Your task to perform on an android device: turn on airplane mode Image 0: 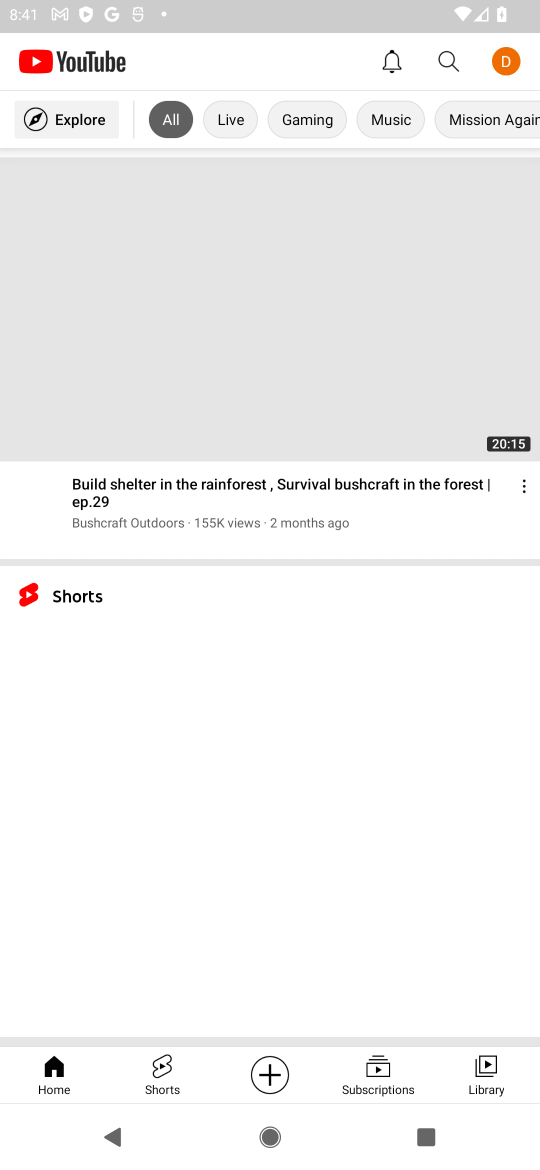
Step 0: press home button
Your task to perform on an android device: turn on airplane mode Image 1: 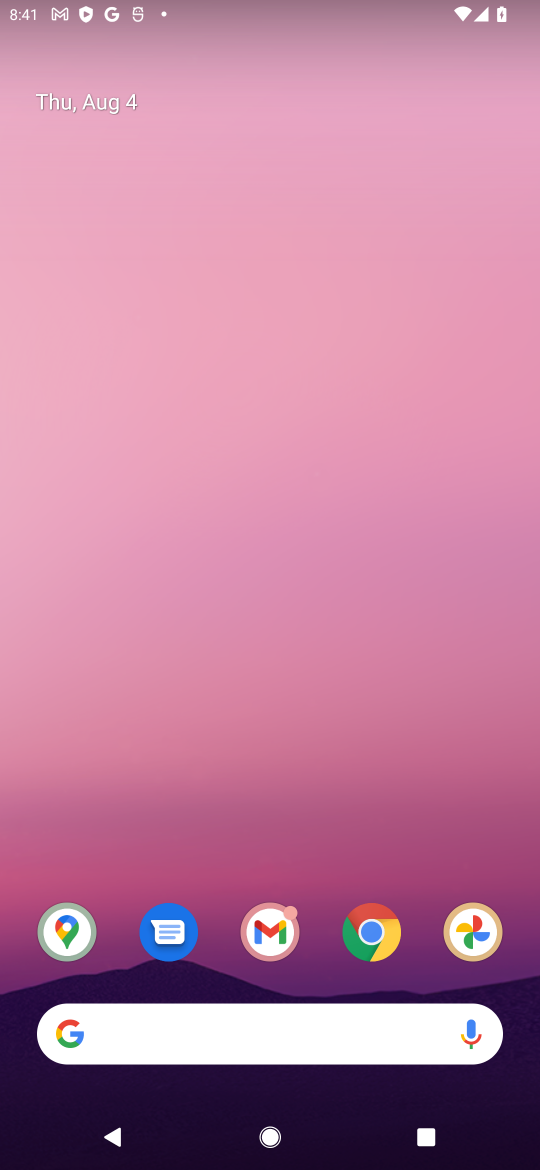
Step 1: drag from (229, 964) to (329, 149)
Your task to perform on an android device: turn on airplane mode Image 2: 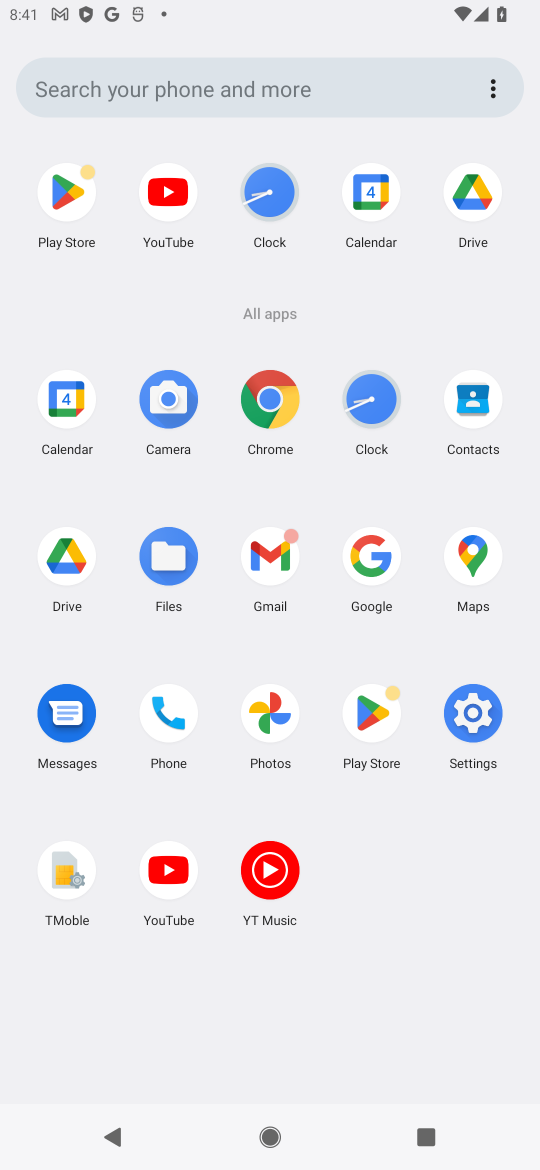
Step 2: click (466, 718)
Your task to perform on an android device: turn on airplane mode Image 3: 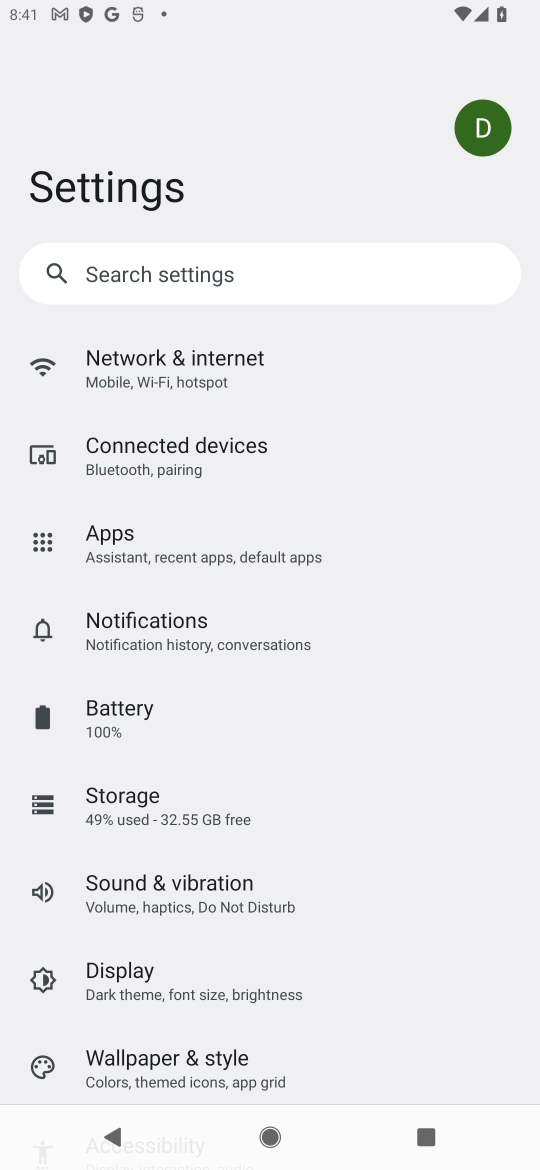
Step 3: click (188, 376)
Your task to perform on an android device: turn on airplane mode Image 4: 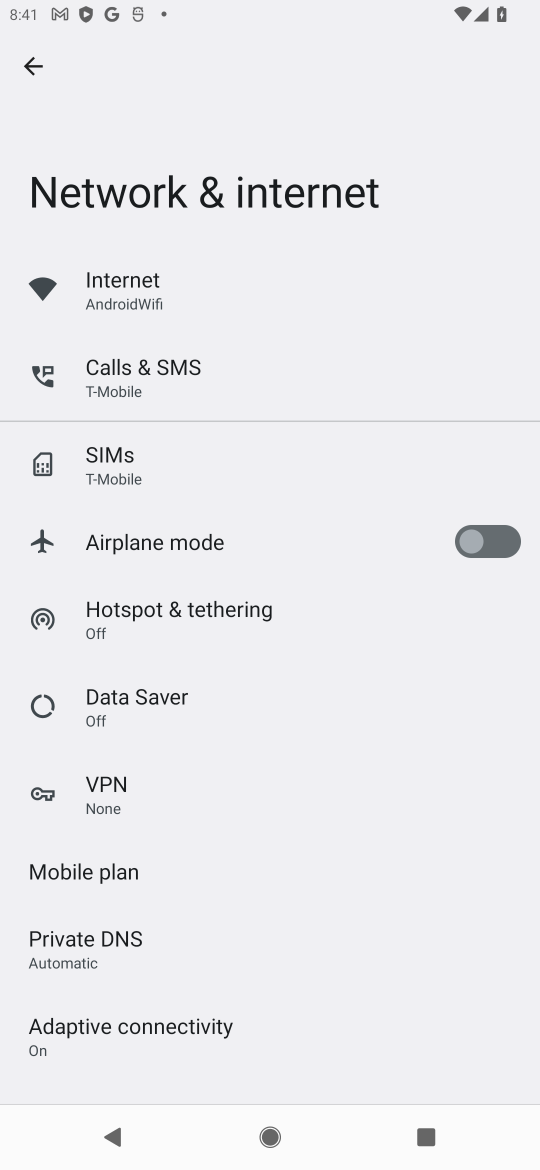
Step 4: drag from (248, 942) to (332, 332)
Your task to perform on an android device: turn on airplane mode Image 5: 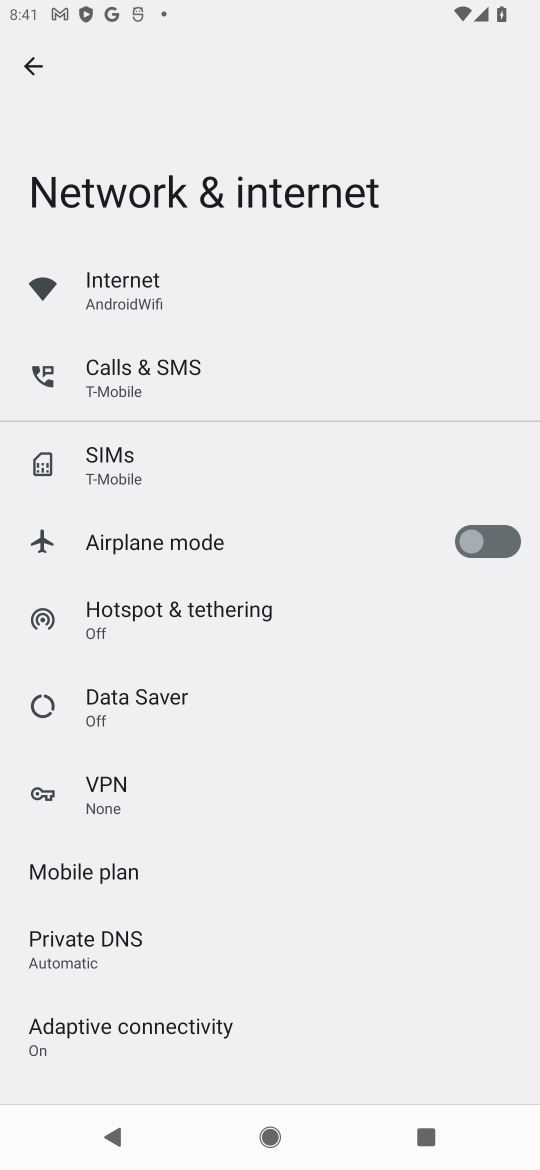
Step 5: drag from (162, 1028) to (409, 346)
Your task to perform on an android device: turn on airplane mode Image 6: 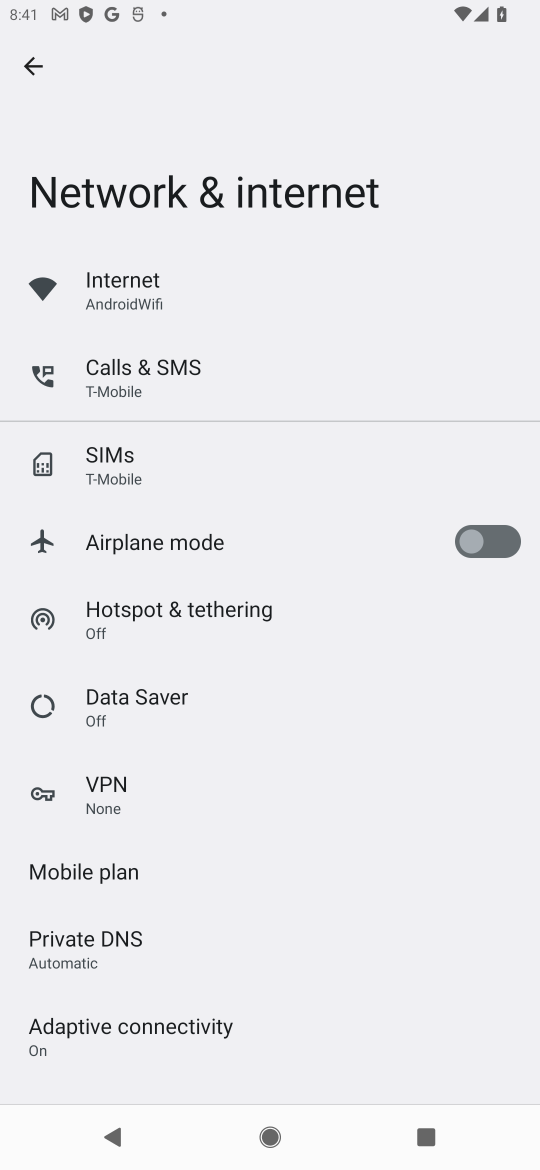
Step 6: click (508, 537)
Your task to perform on an android device: turn on airplane mode Image 7: 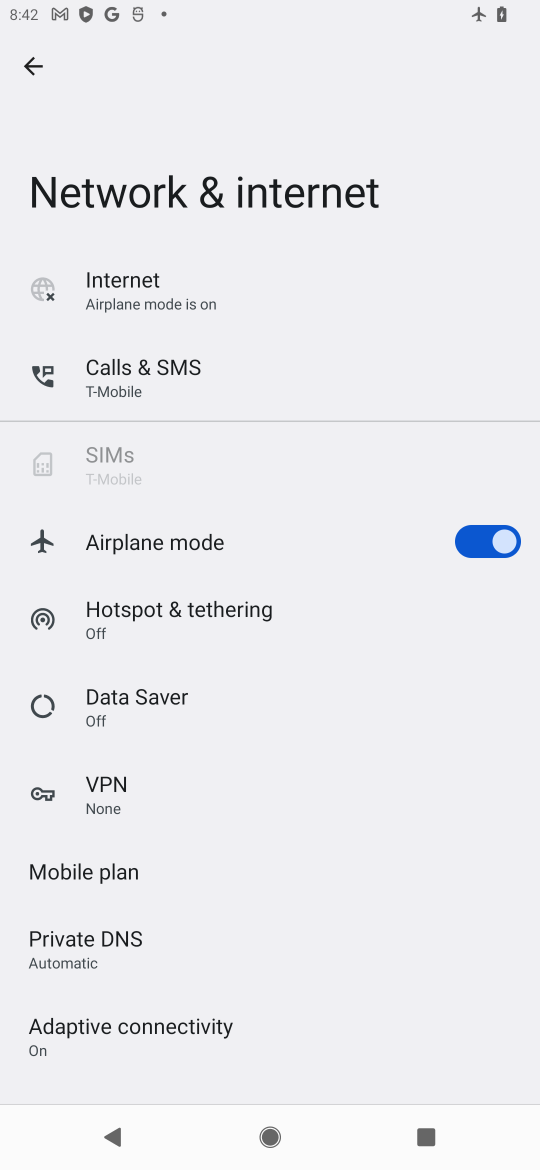
Step 7: task complete